Your task to perform on an android device: turn off javascript in the chrome app Image 0: 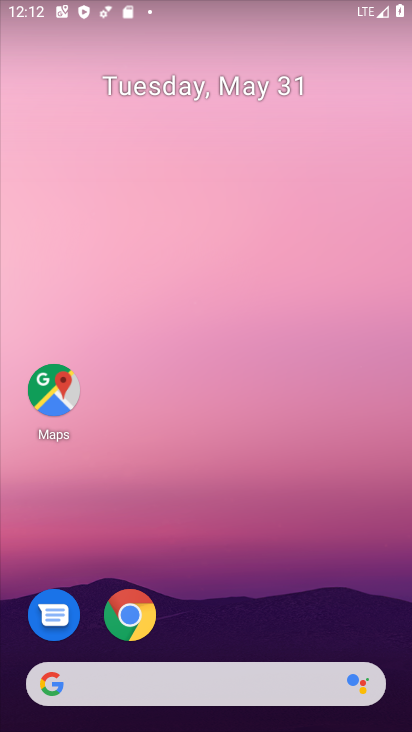
Step 0: click (113, 603)
Your task to perform on an android device: turn off javascript in the chrome app Image 1: 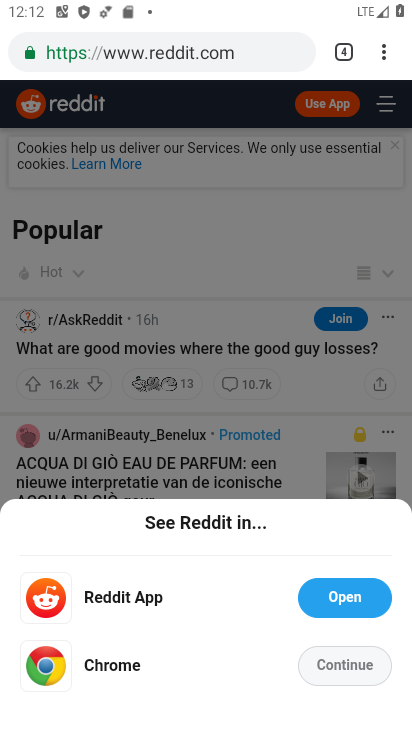
Step 1: click (382, 49)
Your task to perform on an android device: turn off javascript in the chrome app Image 2: 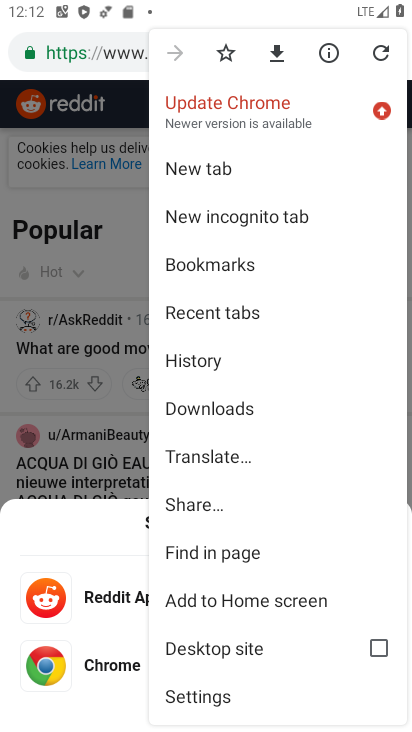
Step 2: click (180, 705)
Your task to perform on an android device: turn off javascript in the chrome app Image 3: 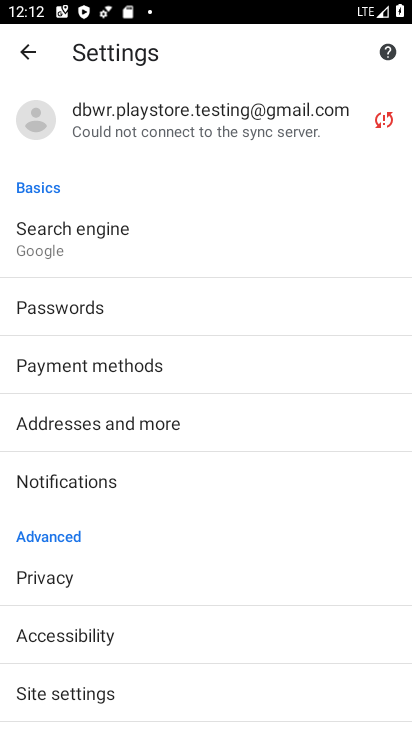
Step 3: click (83, 684)
Your task to perform on an android device: turn off javascript in the chrome app Image 4: 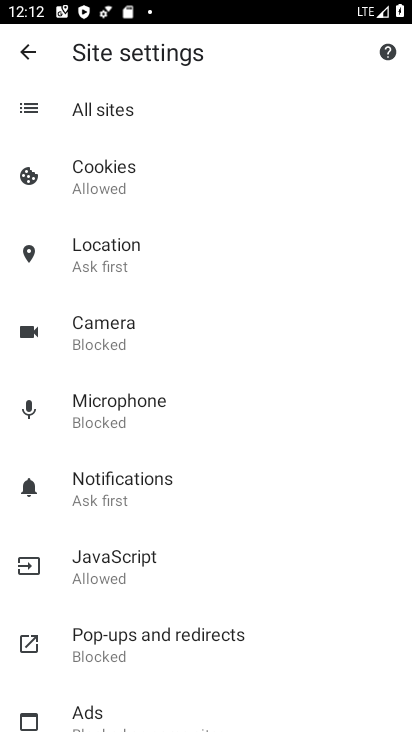
Step 4: click (116, 573)
Your task to perform on an android device: turn off javascript in the chrome app Image 5: 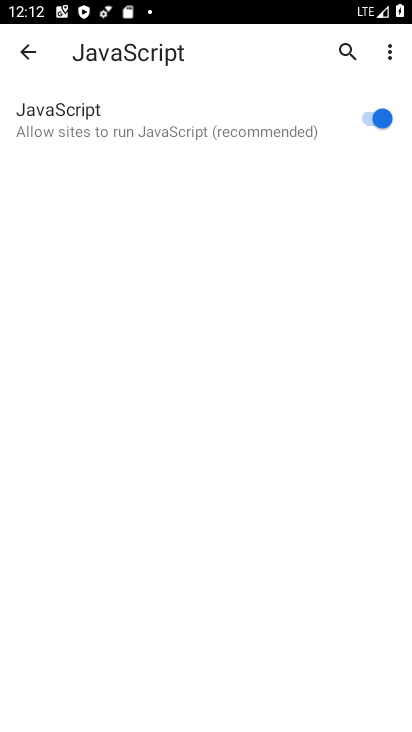
Step 5: click (346, 121)
Your task to perform on an android device: turn off javascript in the chrome app Image 6: 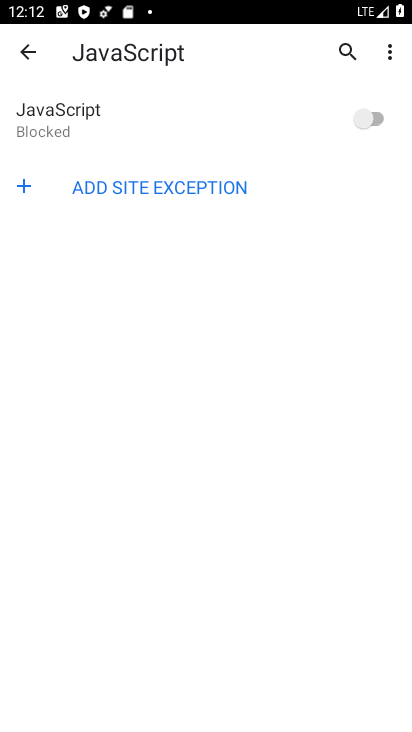
Step 6: task complete